Your task to perform on an android device: Go to notification settings Image 0: 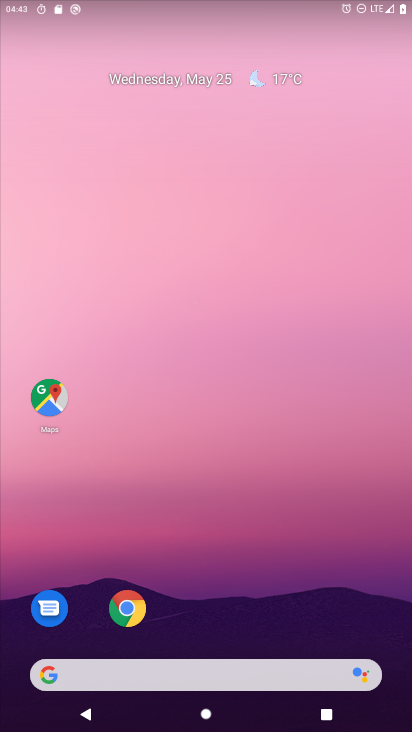
Step 0: drag from (226, 506) to (264, 111)
Your task to perform on an android device: Go to notification settings Image 1: 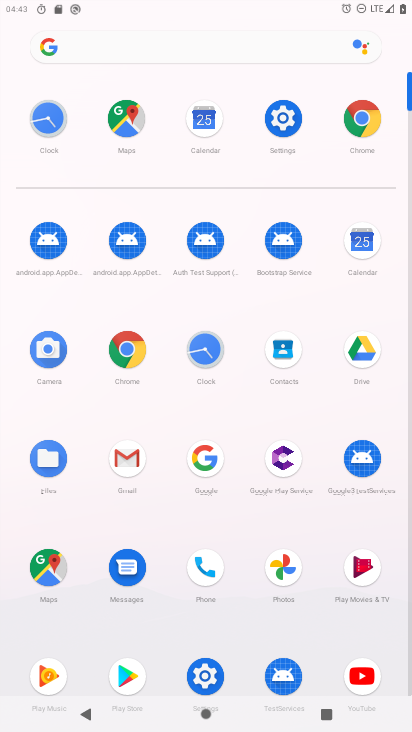
Step 1: click (289, 114)
Your task to perform on an android device: Go to notification settings Image 2: 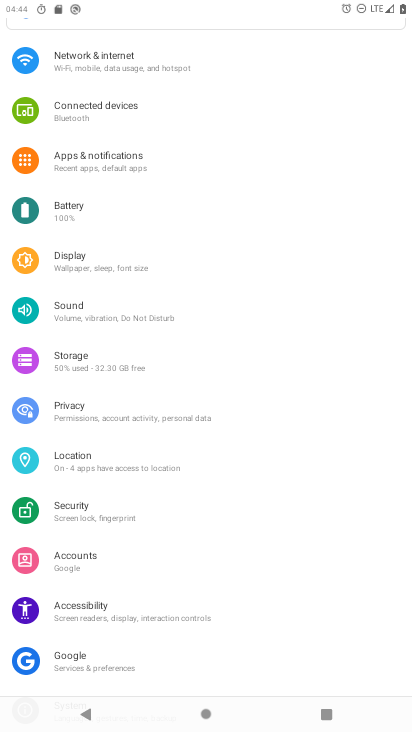
Step 2: drag from (145, 206) to (156, 500)
Your task to perform on an android device: Go to notification settings Image 3: 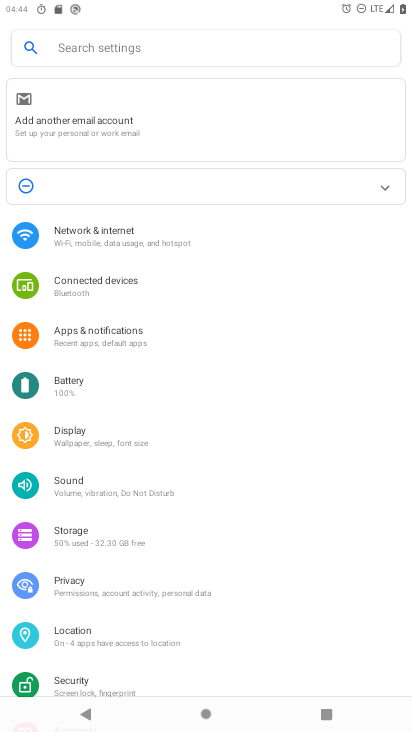
Step 3: click (127, 333)
Your task to perform on an android device: Go to notification settings Image 4: 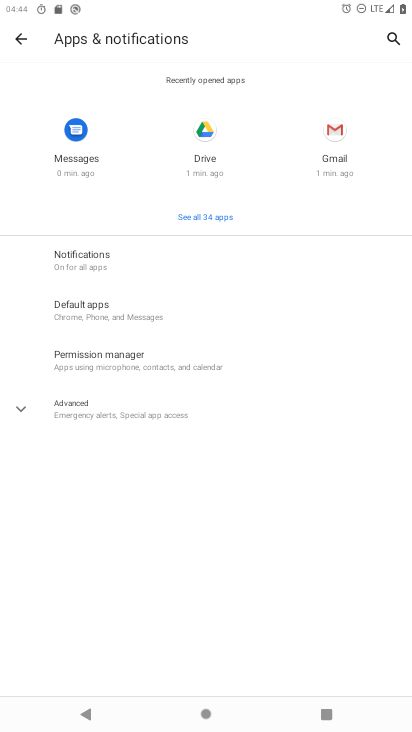
Step 4: click (137, 256)
Your task to perform on an android device: Go to notification settings Image 5: 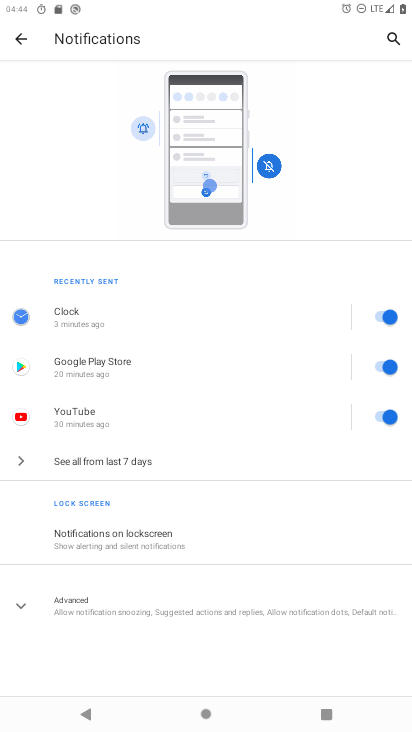
Step 5: task complete